Your task to perform on an android device: See recent photos Image 0: 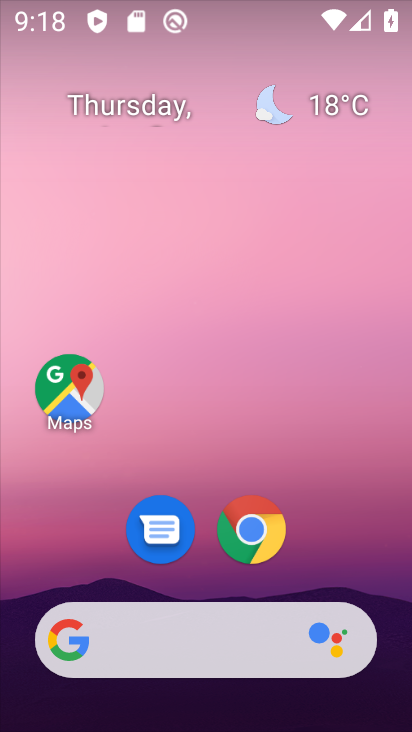
Step 0: drag from (387, 675) to (370, 173)
Your task to perform on an android device: See recent photos Image 1: 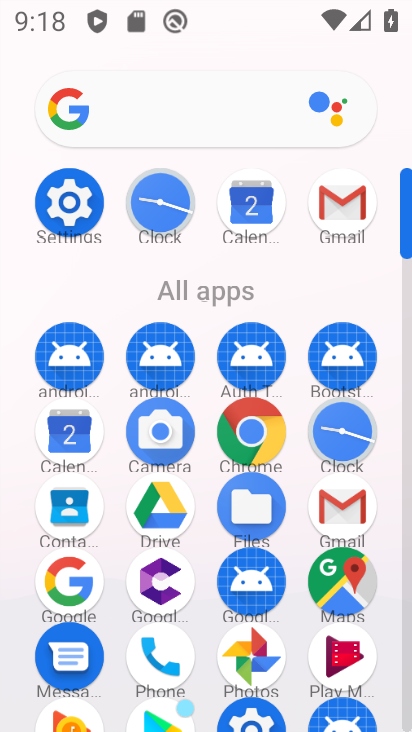
Step 1: click (262, 656)
Your task to perform on an android device: See recent photos Image 2: 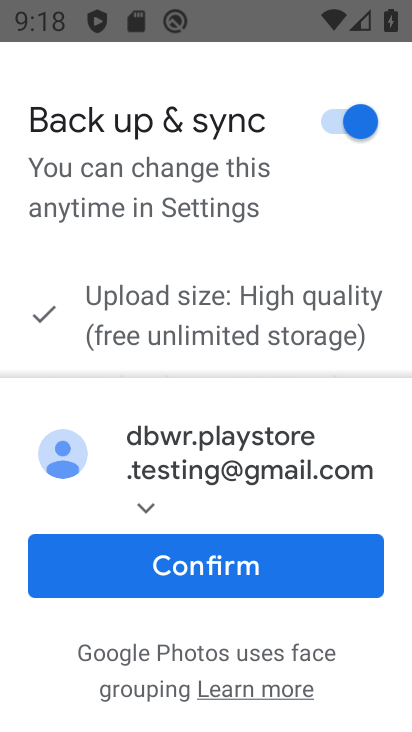
Step 2: click (189, 570)
Your task to perform on an android device: See recent photos Image 3: 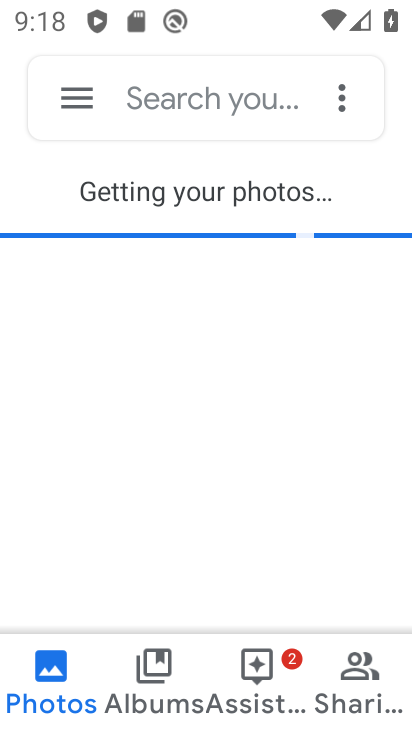
Step 3: click (52, 673)
Your task to perform on an android device: See recent photos Image 4: 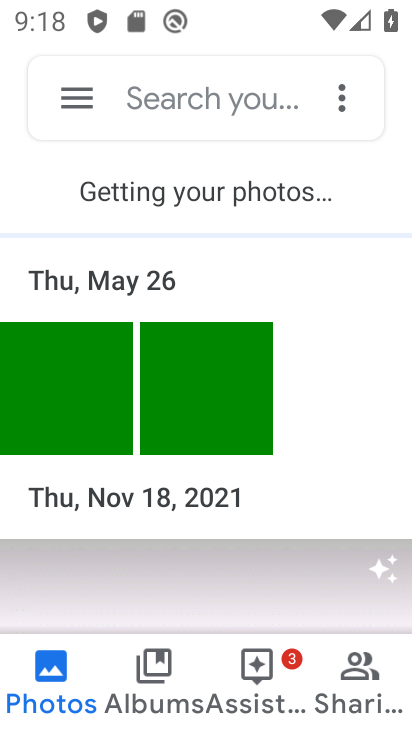
Step 4: click (53, 387)
Your task to perform on an android device: See recent photos Image 5: 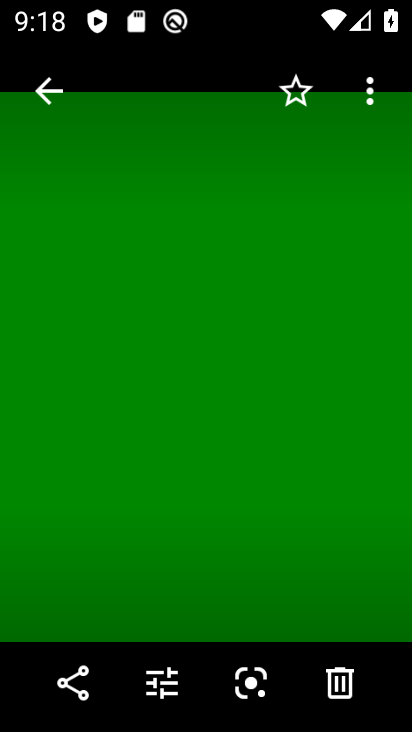
Step 5: click (49, 100)
Your task to perform on an android device: See recent photos Image 6: 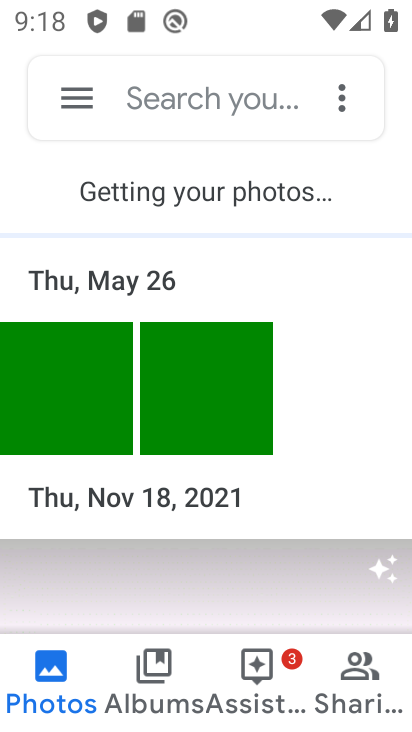
Step 6: click (215, 375)
Your task to perform on an android device: See recent photos Image 7: 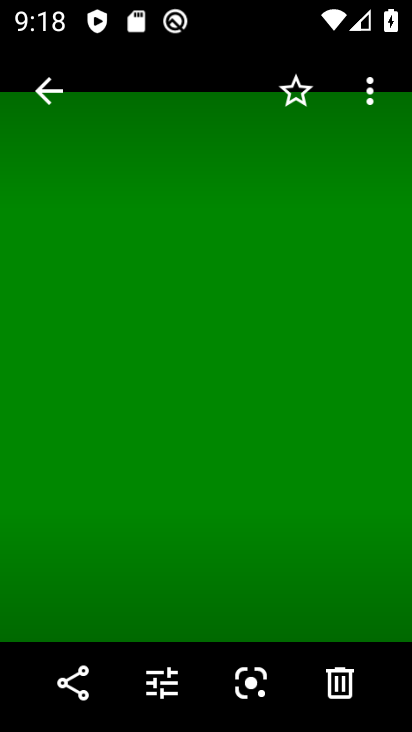
Step 7: task complete